Your task to perform on an android device: Open Chrome and go to settings Image 0: 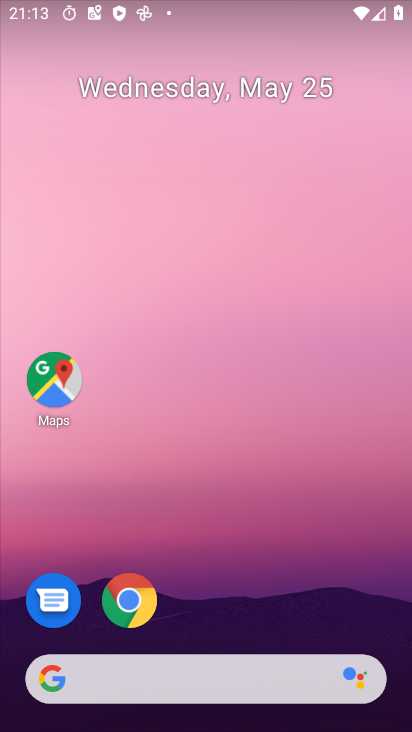
Step 0: drag from (322, 564) to (311, 124)
Your task to perform on an android device: Open Chrome and go to settings Image 1: 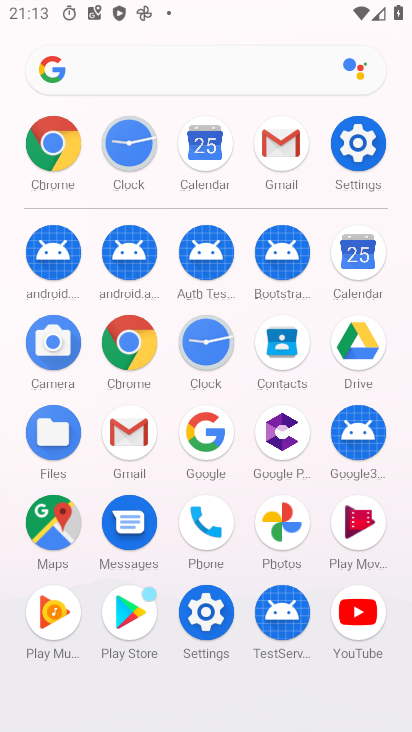
Step 1: click (48, 150)
Your task to perform on an android device: Open Chrome and go to settings Image 2: 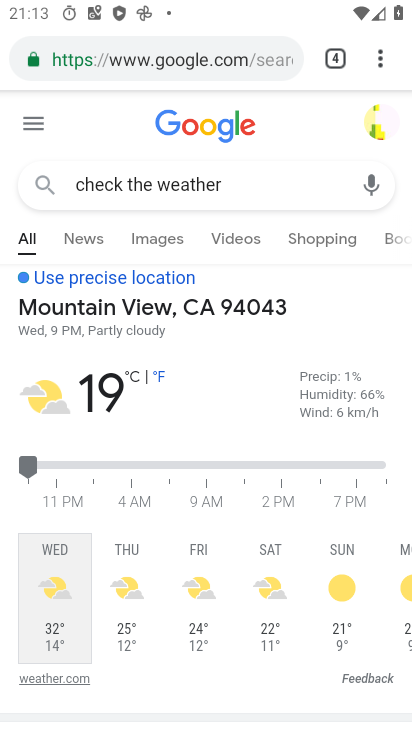
Step 2: task complete